Your task to perform on an android device: toggle improve location accuracy Image 0: 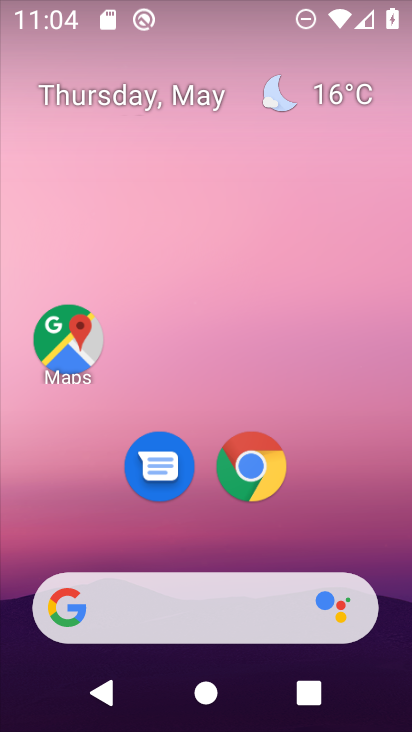
Step 0: click (256, 467)
Your task to perform on an android device: toggle improve location accuracy Image 1: 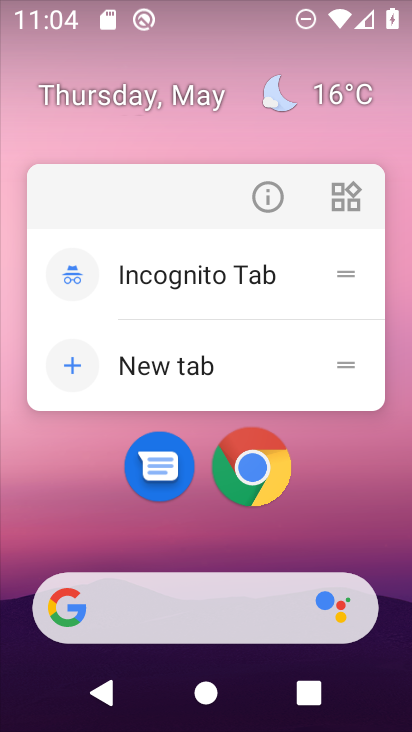
Step 1: click (305, 543)
Your task to perform on an android device: toggle improve location accuracy Image 2: 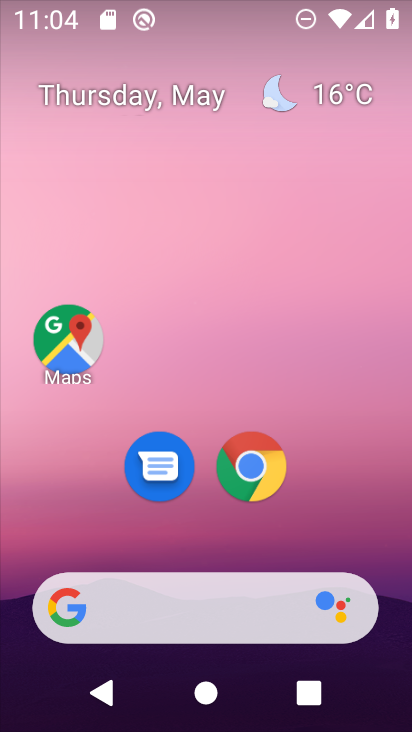
Step 2: drag from (305, 538) to (242, 130)
Your task to perform on an android device: toggle improve location accuracy Image 3: 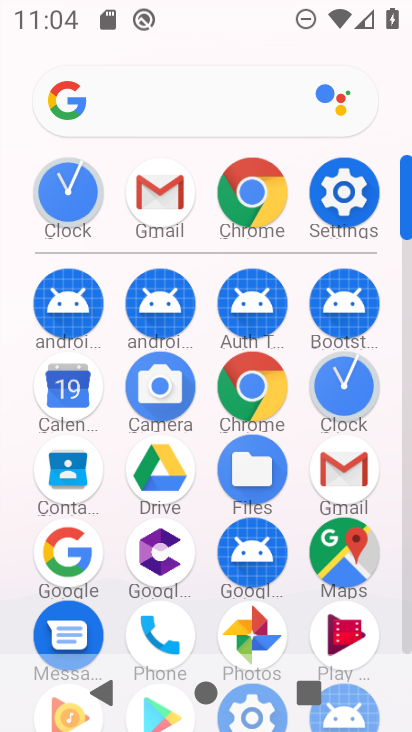
Step 3: click (358, 183)
Your task to perform on an android device: toggle improve location accuracy Image 4: 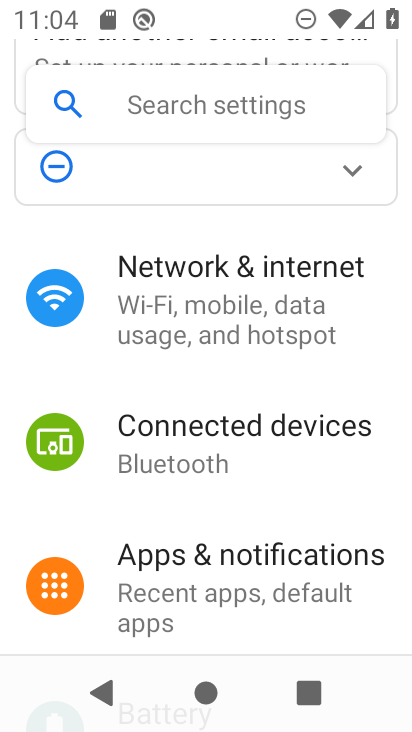
Step 4: drag from (136, 557) to (150, 218)
Your task to perform on an android device: toggle improve location accuracy Image 5: 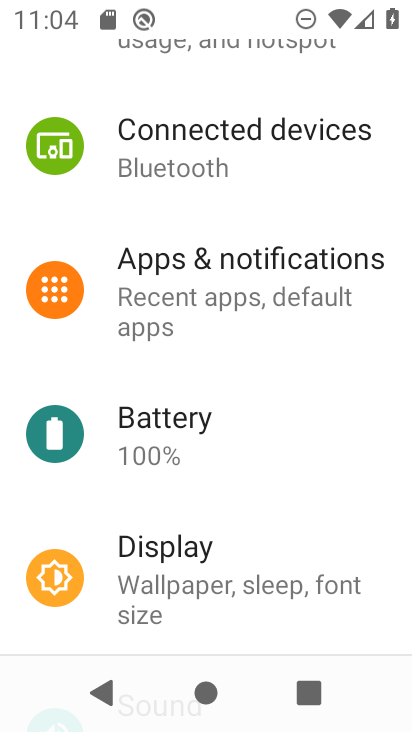
Step 5: drag from (197, 564) to (247, 160)
Your task to perform on an android device: toggle improve location accuracy Image 6: 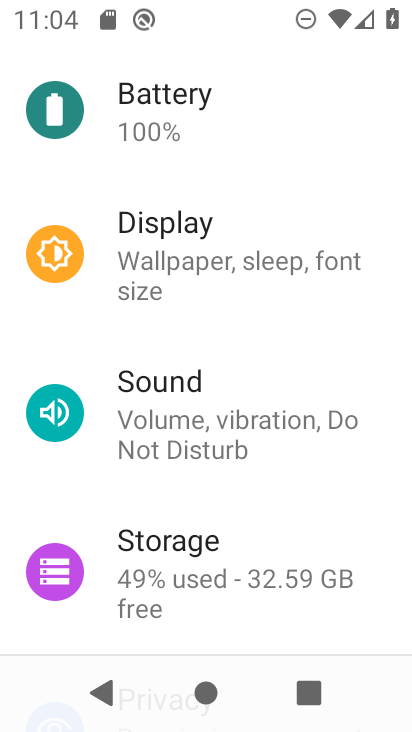
Step 6: drag from (216, 484) to (243, 211)
Your task to perform on an android device: toggle improve location accuracy Image 7: 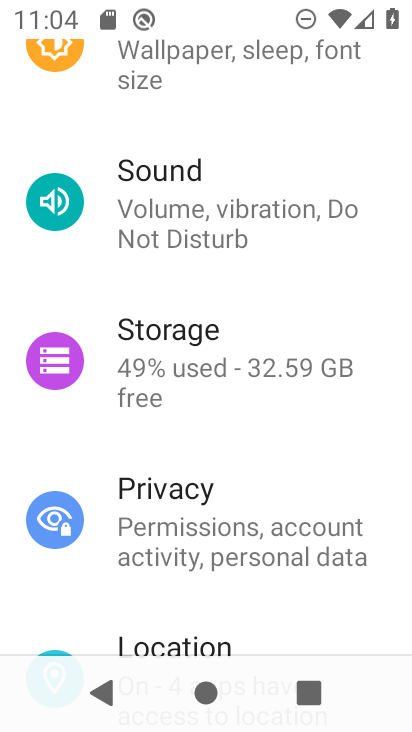
Step 7: drag from (201, 490) to (252, 198)
Your task to perform on an android device: toggle improve location accuracy Image 8: 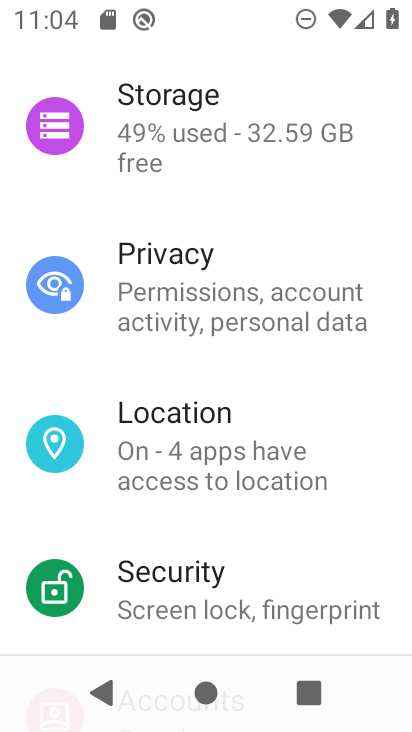
Step 8: drag from (224, 543) to (235, 241)
Your task to perform on an android device: toggle improve location accuracy Image 9: 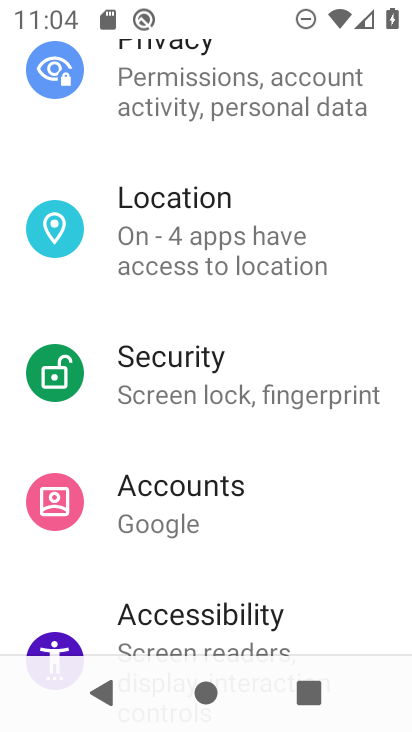
Step 9: click (267, 226)
Your task to perform on an android device: toggle improve location accuracy Image 10: 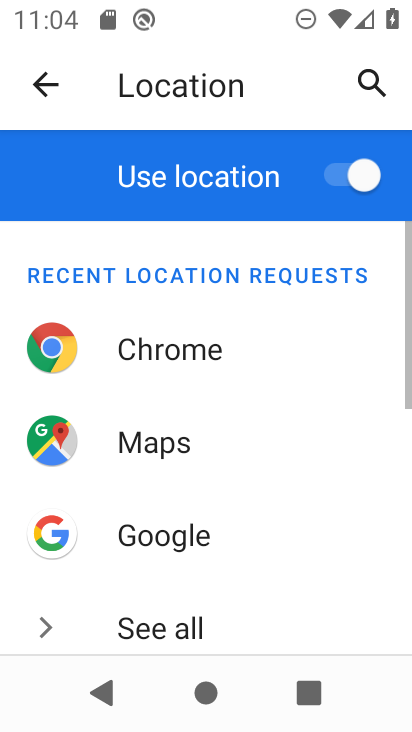
Step 10: drag from (193, 525) to (212, 188)
Your task to perform on an android device: toggle improve location accuracy Image 11: 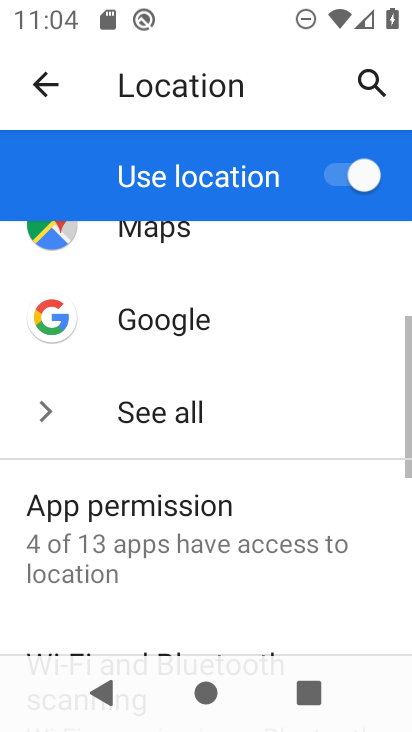
Step 11: drag from (204, 571) to (255, 181)
Your task to perform on an android device: toggle improve location accuracy Image 12: 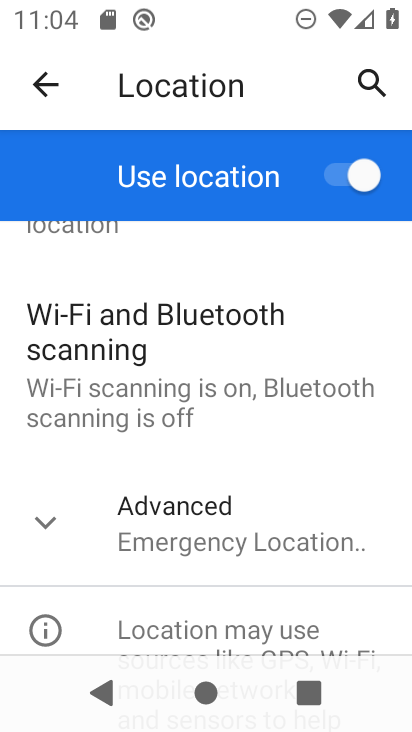
Step 12: click (182, 516)
Your task to perform on an android device: toggle improve location accuracy Image 13: 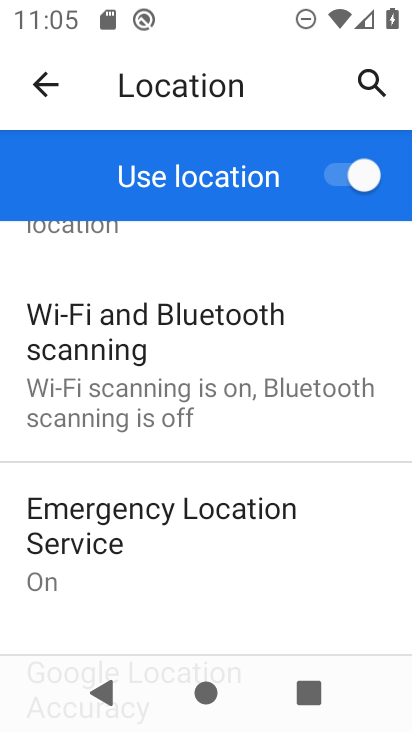
Step 13: drag from (294, 605) to (335, 155)
Your task to perform on an android device: toggle improve location accuracy Image 14: 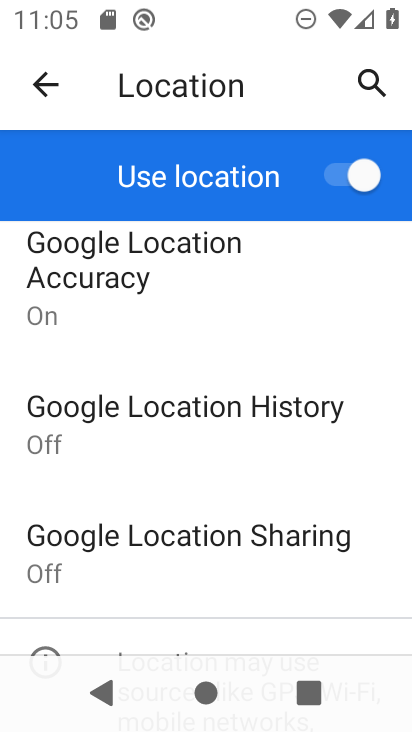
Step 14: click (259, 420)
Your task to perform on an android device: toggle improve location accuracy Image 15: 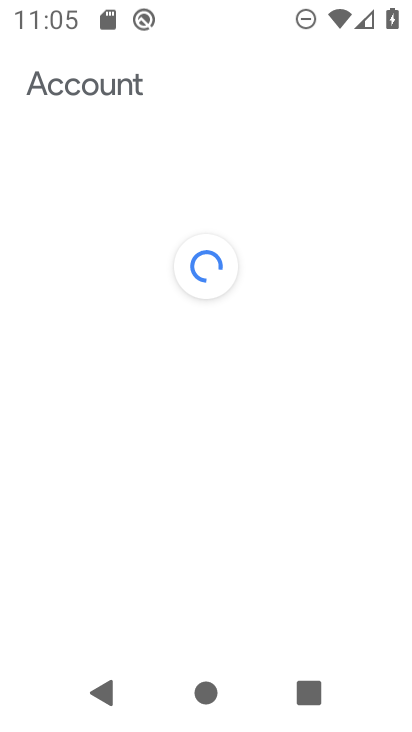
Step 15: press back button
Your task to perform on an android device: toggle improve location accuracy Image 16: 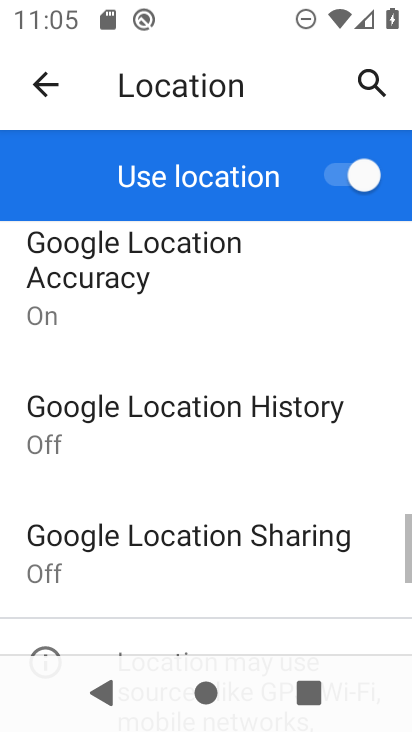
Step 16: click (174, 252)
Your task to perform on an android device: toggle improve location accuracy Image 17: 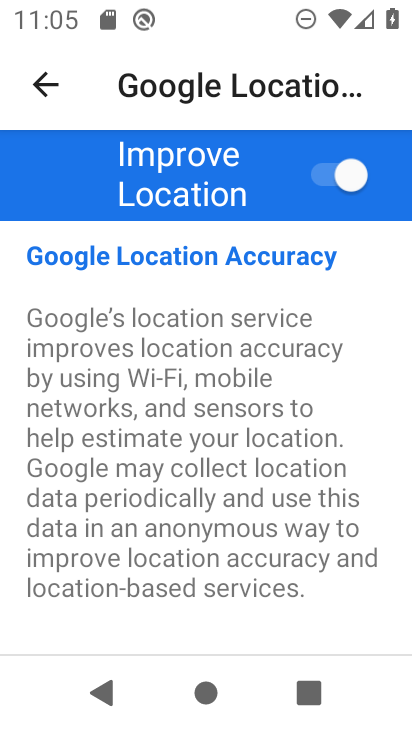
Step 17: click (338, 172)
Your task to perform on an android device: toggle improve location accuracy Image 18: 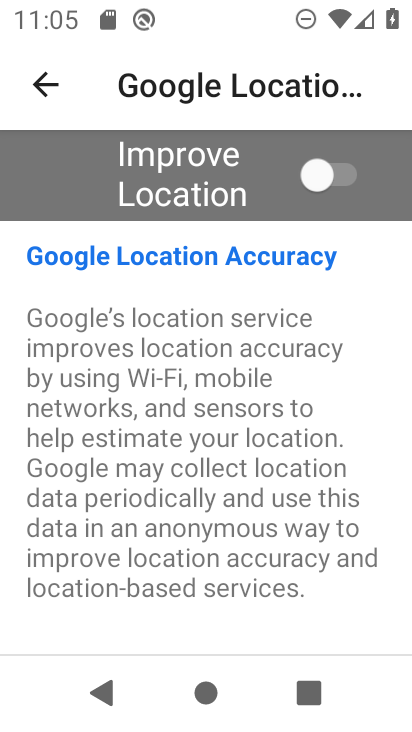
Step 18: task complete